Your task to perform on an android device: Open location settings Image 0: 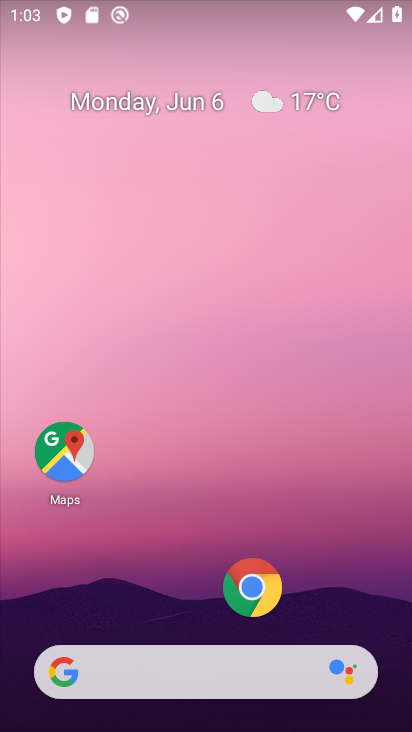
Step 0: drag from (176, 607) to (183, 254)
Your task to perform on an android device: Open location settings Image 1: 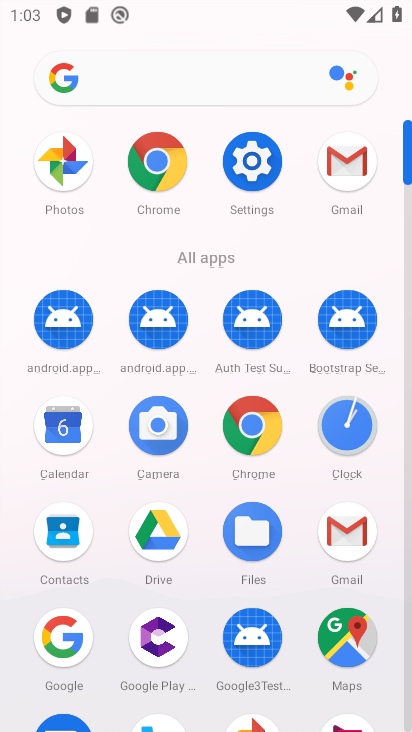
Step 1: click (238, 170)
Your task to perform on an android device: Open location settings Image 2: 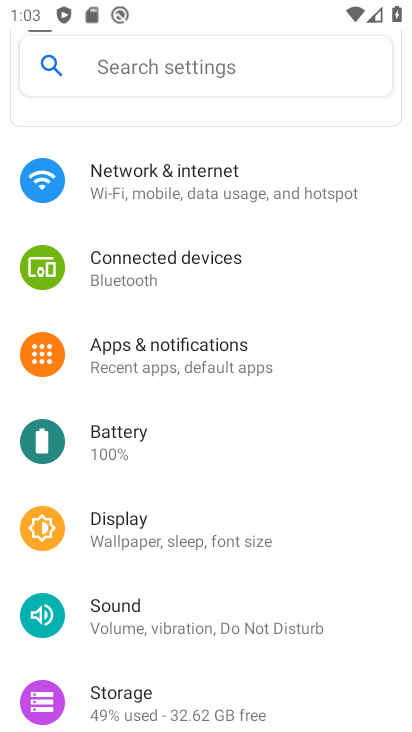
Step 2: drag from (154, 623) to (185, 397)
Your task to perform on an android device: Open location settings Image 3: 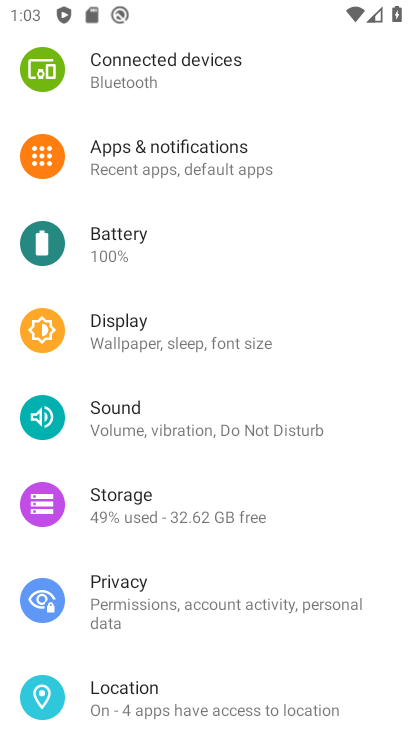
Step 3: click (149, 696)
Your task to perform on an android device: Open location settings Image 4: 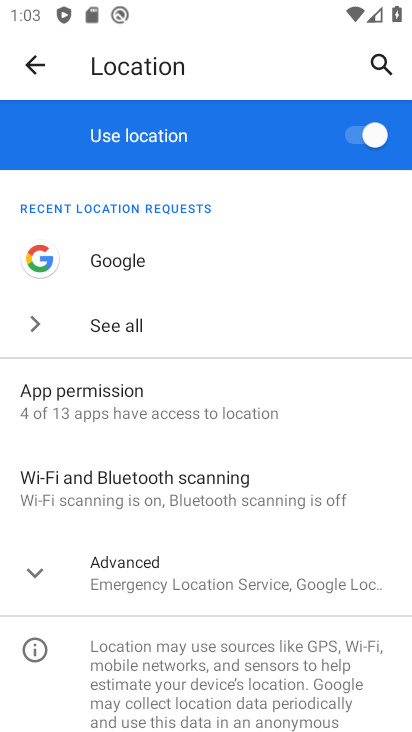
Step 4: task complete